Your task to perform on an android device: show emergency info Image 0: 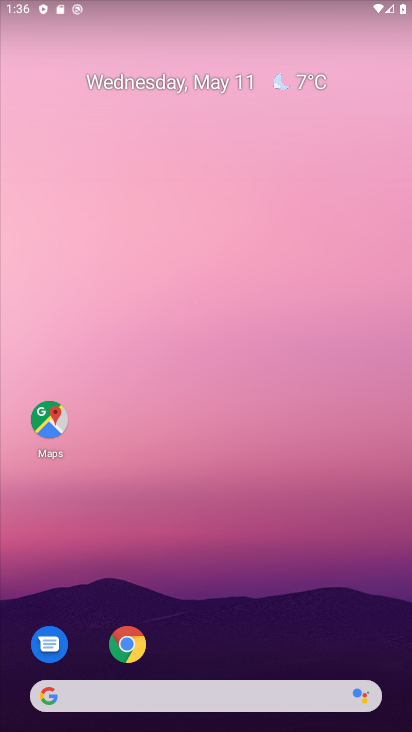
Step 0: drag from (196, 680) to (217, 36)
Your task to perform on an android device: show emergency info Image 1: 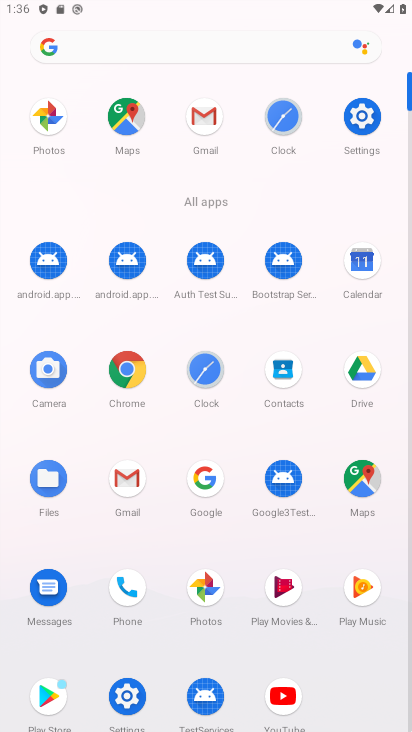
Step 1: click (378, 112)
Your task to perform on an android device: show emergency info Image 2: 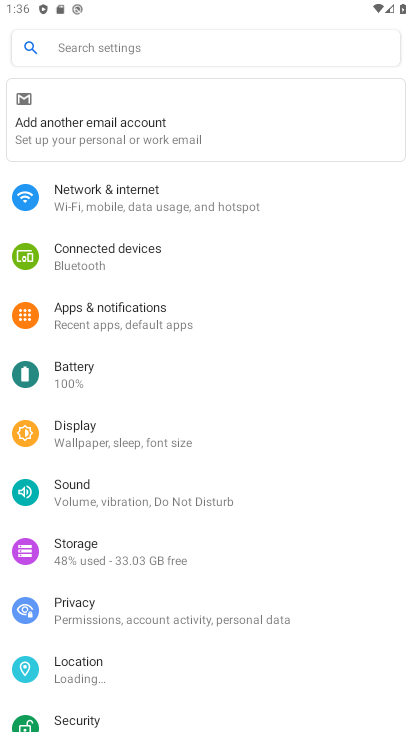
Step 2: drag from (216, 492) to (387, 44)
Your task to perform on an android device: show emergency info Image 3: 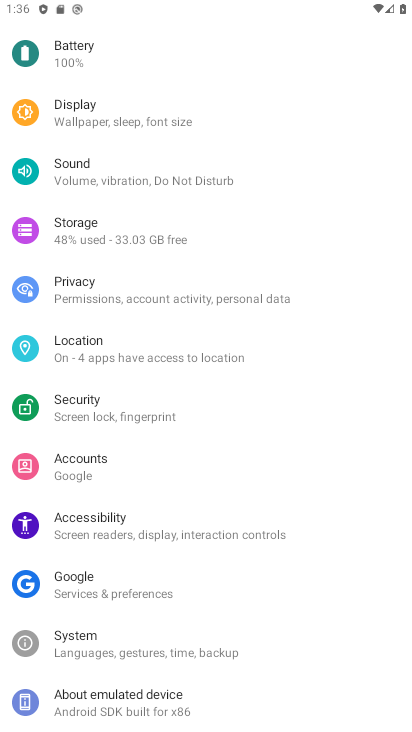
Step 3: drag from (252, 492) to (391, 50)
Your task to perform on an android device: show emergency info Image 4: 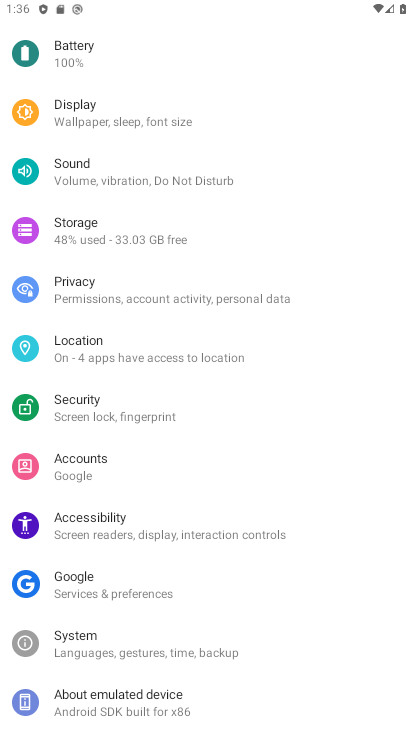
Step 4: click (167, 658)
Your task to perform on an android device: show emergency info Image 5: 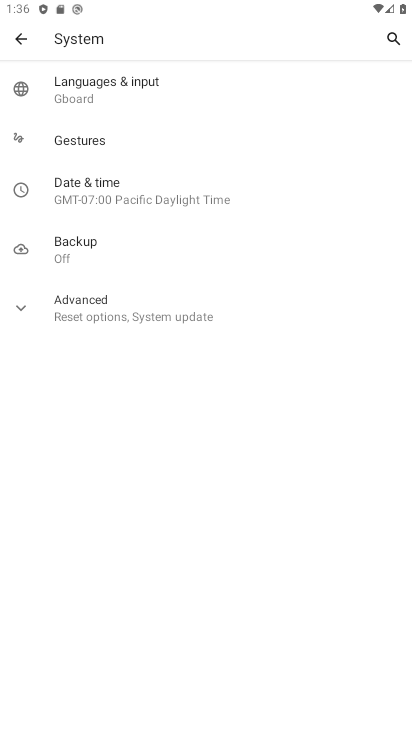
Step 5: click (96, 324)
Your task to perform on an android device: show emergency info Image 6: 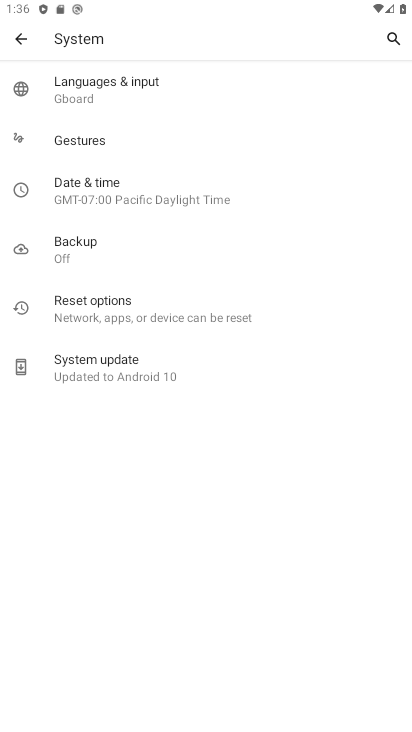
Step 6: task complete